Your task to perform on an android device: remove spam from my inbox in the gmail app Image 0: 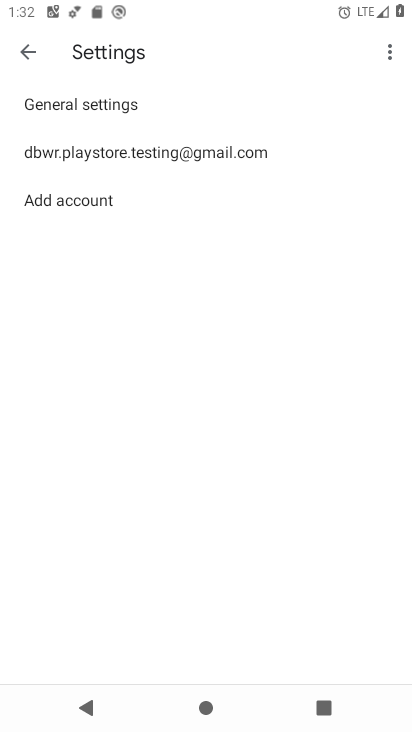
Step 0: click (28, 59)
Your task to perform on an android device: remove spam from my inbox in the gmail app Image 1: 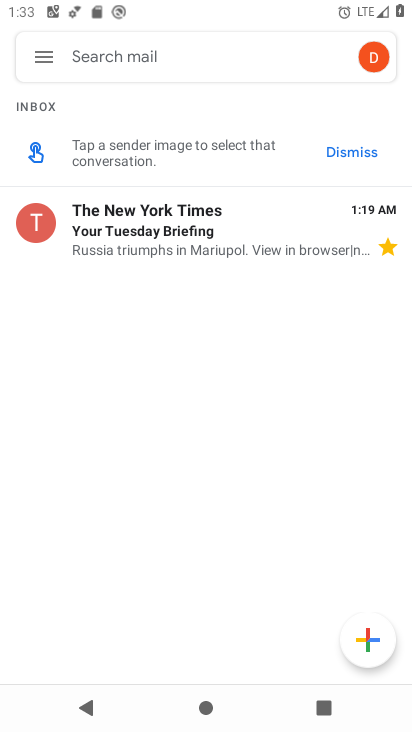
Step 1: click (52, 72)
Your task to perform on an android device: remove spam from my inbox in the gmail app Image 2: 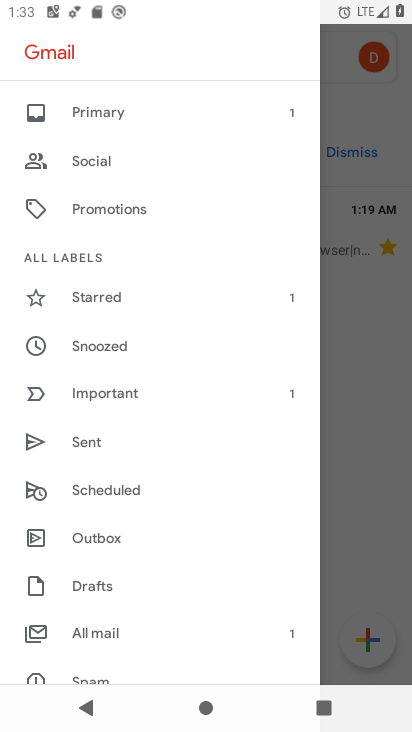
Step 2: drag from (138, 557) to (246, 352)
Your task to perform on an android device: remove spam from my inbox in the gmail app Image 3: 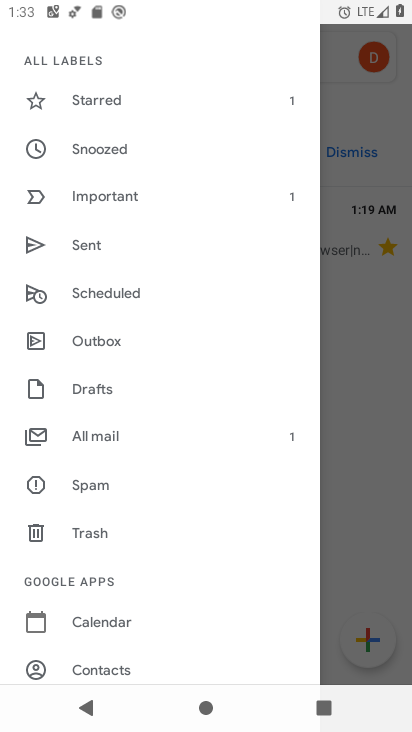
Step 3: click (117, 477)
Your task to perform on an android device: remove spam from my inbox in the gmail app Image 4: 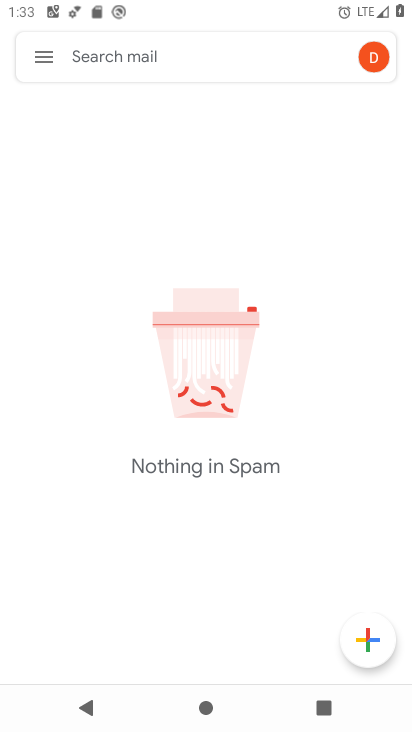
Step 4: task complete